Your task to perform on an android device: star an email in the gmail app Image 0: 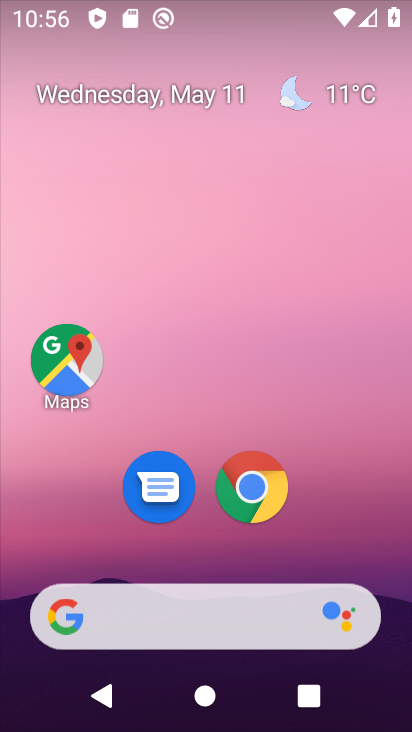
Step 0: drag from (322, 558) to (343, 178)
Your task to perform on an android device: star an email in the gmail app Image 1: 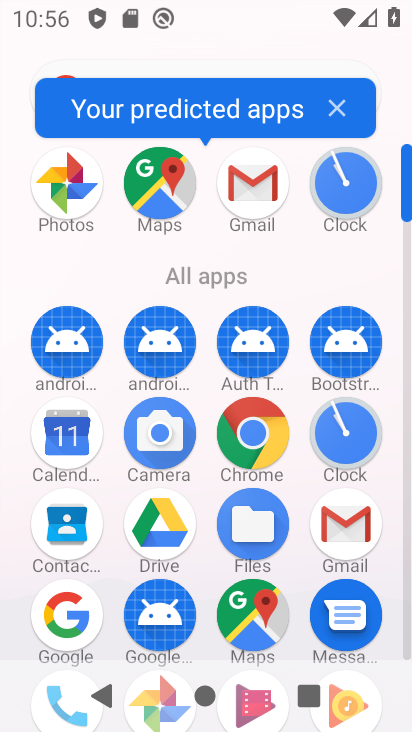
Step 1: click (347, 536)
Your task to perform on an android device: star an email in the gmail app Image 2: 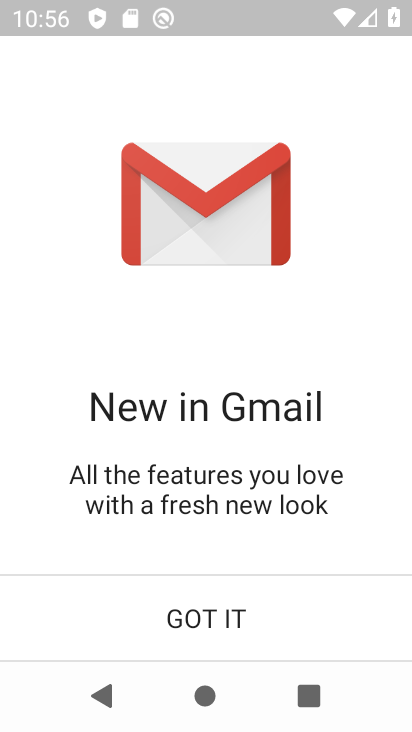
Step 2: click (216, 609)
Your task to perform on an android device: star an email in the gmail app Image 3: 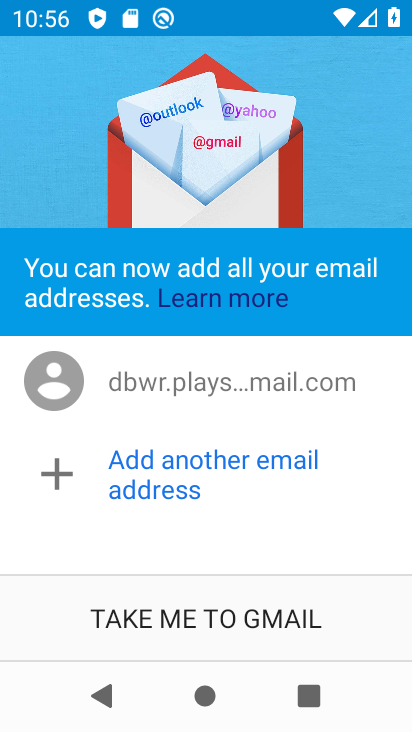
Step 3: click (209, 638)
Your task to perform on an android device: star an email in the gmail app Image 4: 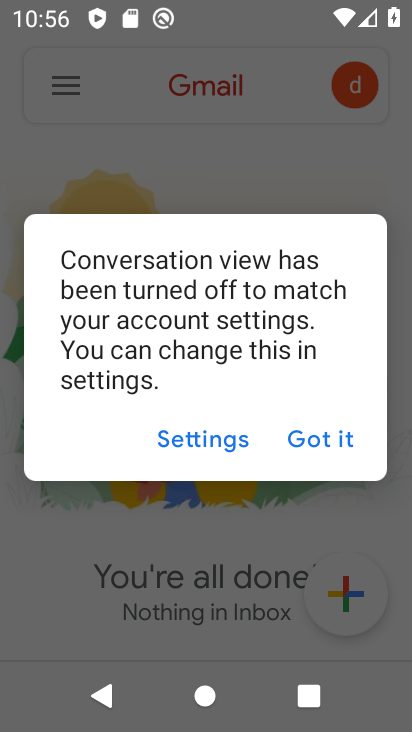
Step 4: click (309, 451)
Your task to perform on an android device: star an email in the gmail app Image 5: 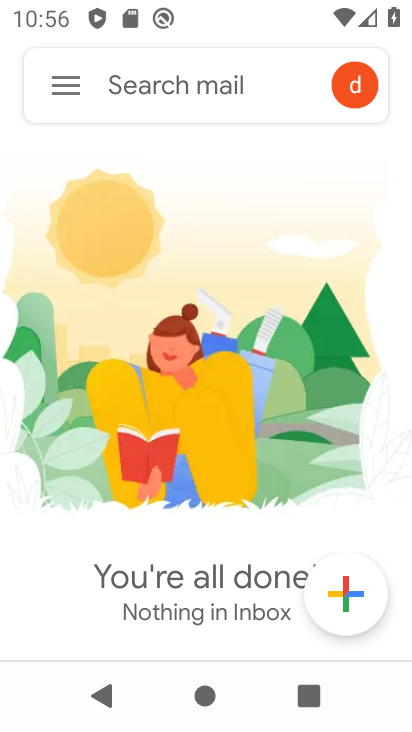
Step 5: click (63, 75)
Your task to perform on an android device: star an email in the gmail app Image 6: 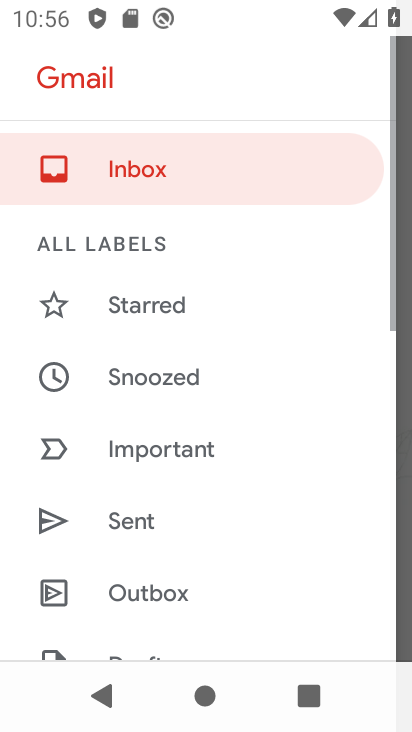
Step 6: click (207, 186)
Your task to perform on an android device: star an email in the gmail app Image 7: 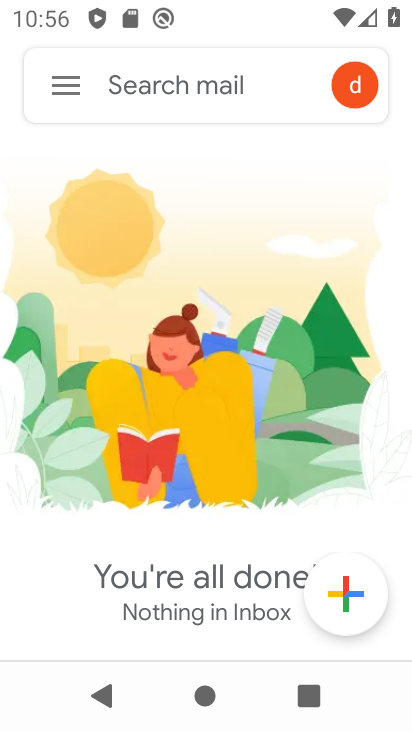
Step 7: task complete